Your task to perform on an android device: turn notification dots off Image 0: 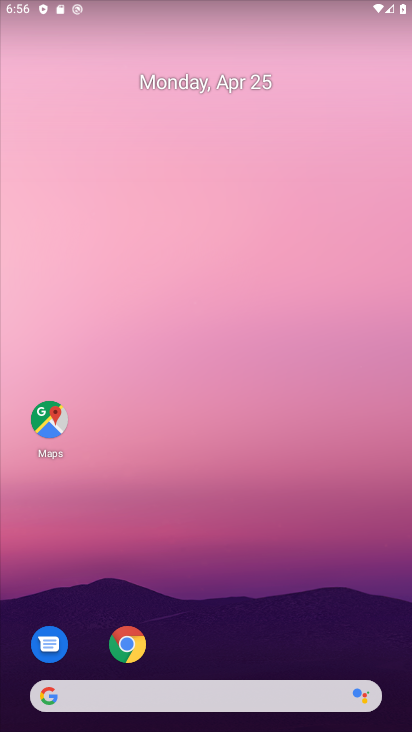
Step 0: drag from (276, 534) to (336, 46)
Your task to perform on an android device: turn notification dots off Image 1: 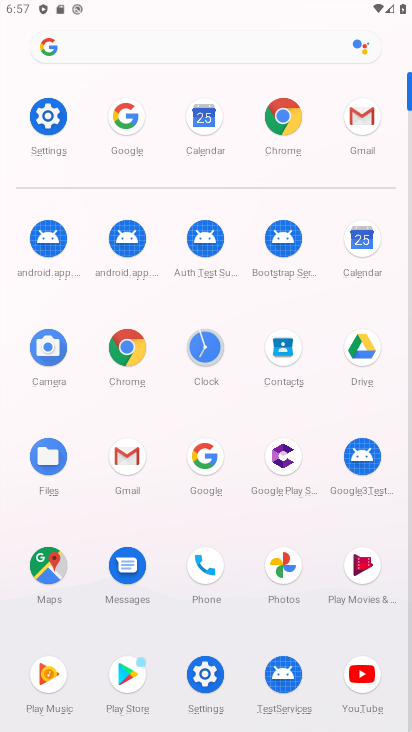
Step 1: click (211, 676)
Your task to perform on an android device: turn notification dots off Image 2: 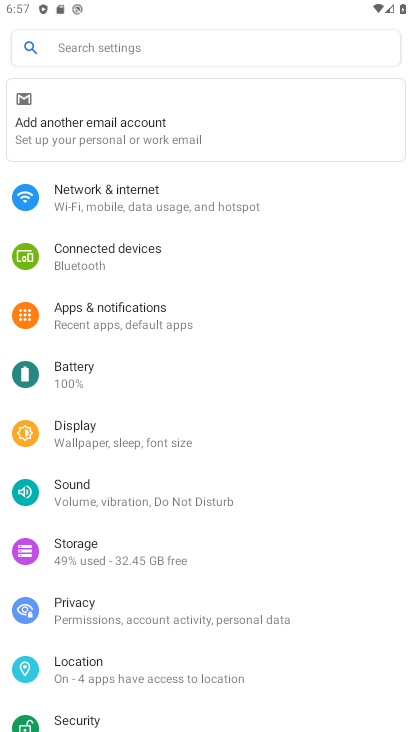
Step 2: click (119, 316)
Your task to perform on an android device: turn notification dots off Image 3: 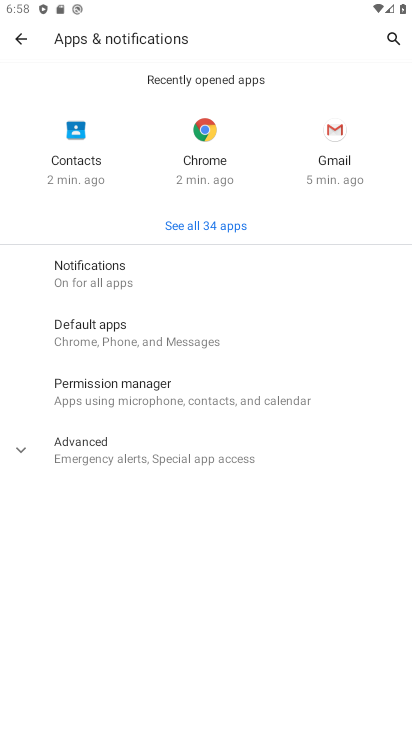
Step 3: click (147, 285)
Your task to perform on an android device: turn notification dots off Image 4: 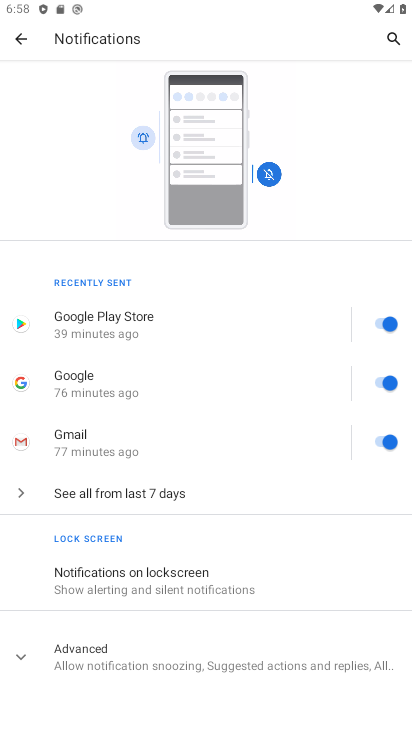
Step 4: click (209, 648)
Your task to perform on an android device: turn notification dots off Image 5: 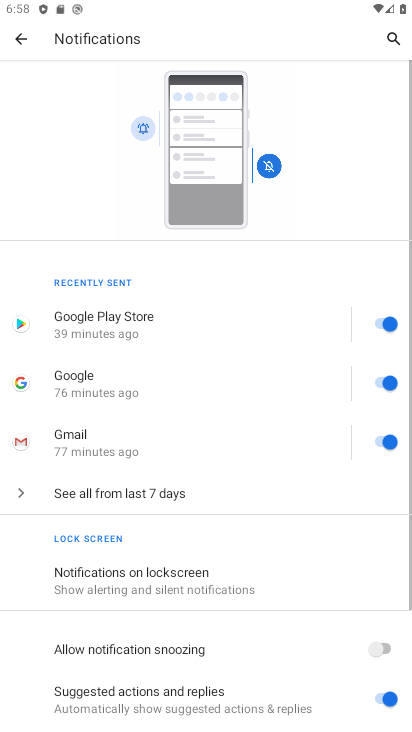
Step 5: drag from (236, 540) to (293, 265)
Your task to perform on an android device: turn notification dots off Image 6: 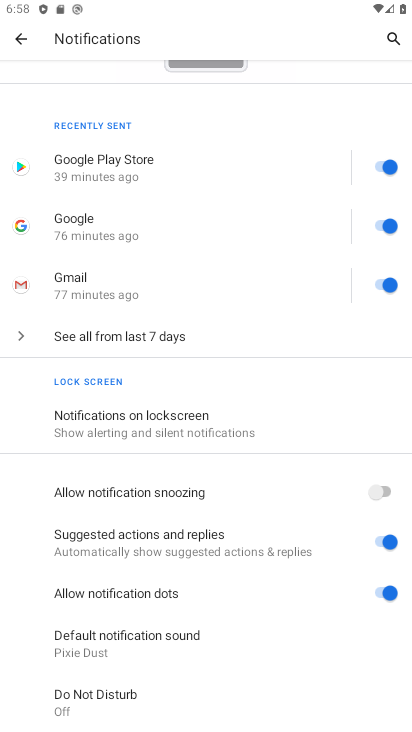
Step 6: click (380, 593)
Your task to perform on an android device: turn notification dots off Image 7: 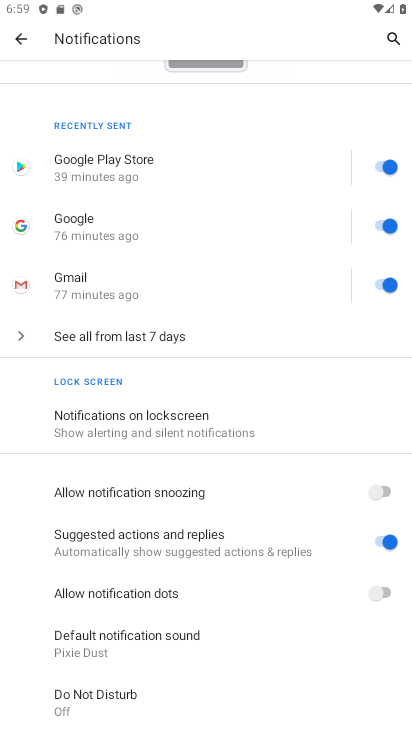
Step 7: task complete